Your task to perform on an android device: empty trash in the gmail app Image 0: 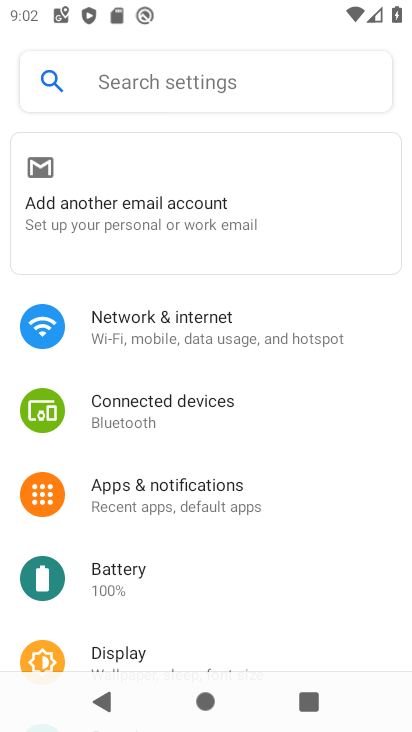
Step 0: press home button
Your task to perform on an android device: empty trash in the gmail app Image 1: 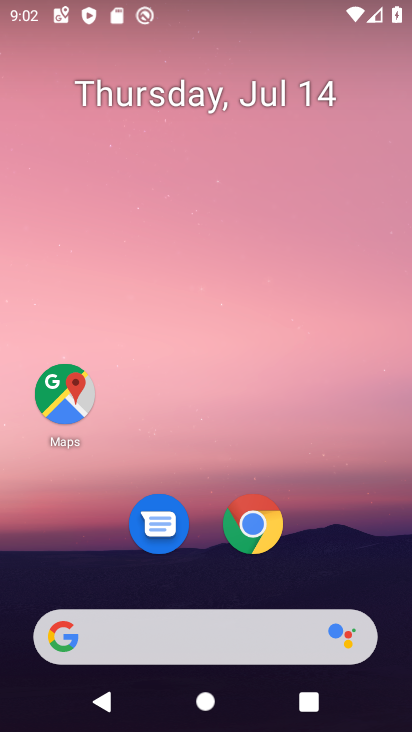
Step 1: drag from (297, 426) to (281, 14)
Your task to perform on an android device: empty trash in the gmail app Image 2: 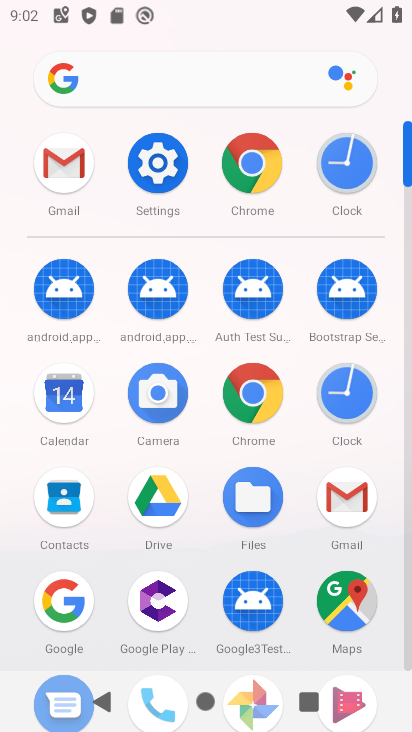
Step 2: click (69, 169)
Your task to perform on an android device: empty trash in the gmail app Image 3: 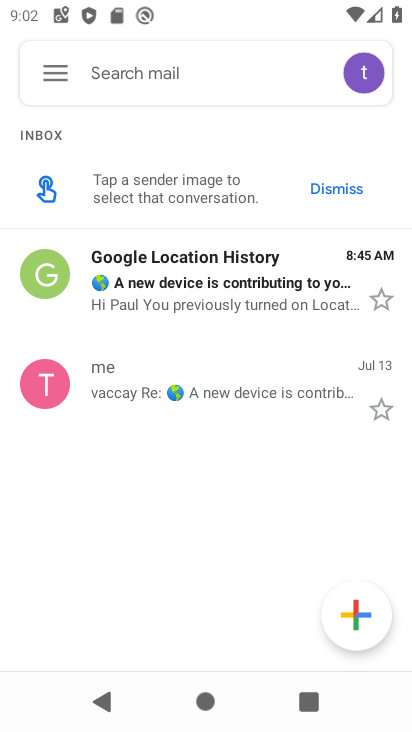
Step 3: click (58, 75)
Your task to perform on an android device: empty trash in the gmail app Image 4: 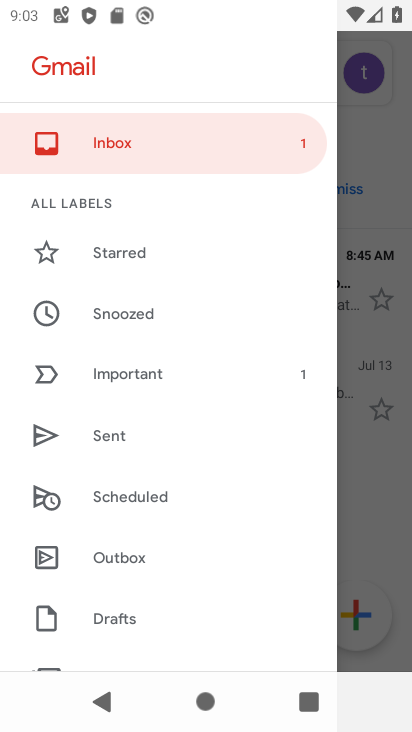
Step 4: drag from (159, 555) to (129, 149)
Your task to perform on an android device: empty trash in the gmail app Image 5: 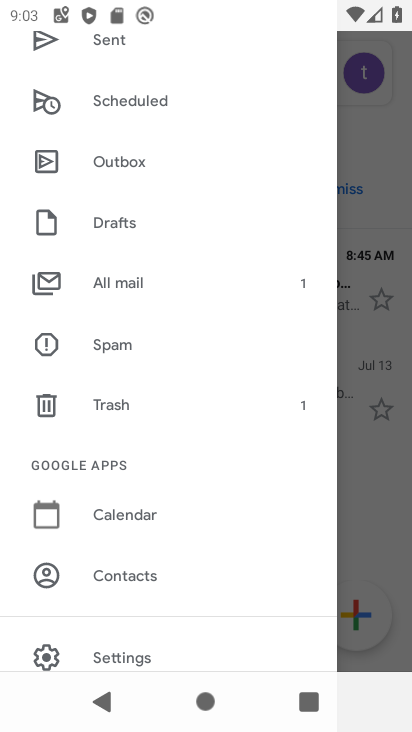
Step 5: click (137, 405)
Your task to perform on an android device: empty trash in the gmail app Image 6: 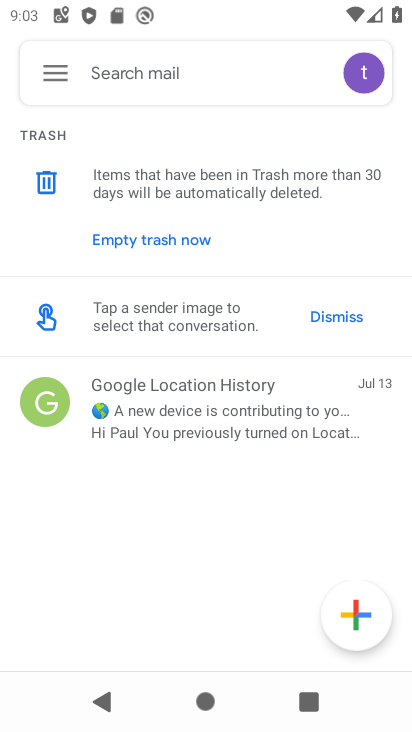
Step 6: click (145, 231)
Your task to perform on an android device: empty trash in the gmail app Image 7: 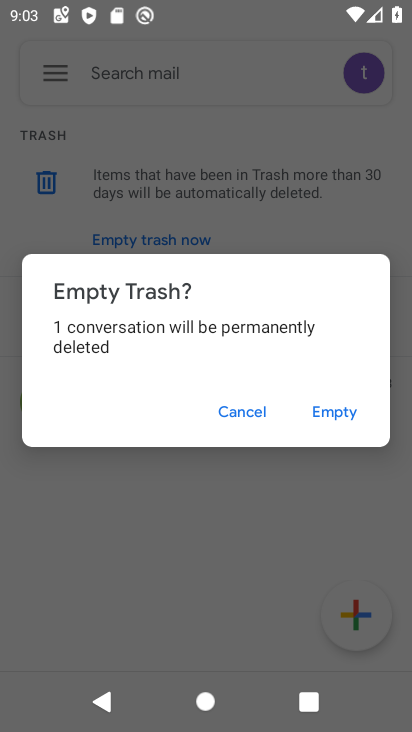
Step 7: click (352, 408)
Your task to perform on an android device: empty trash in the gmail app Image 8: 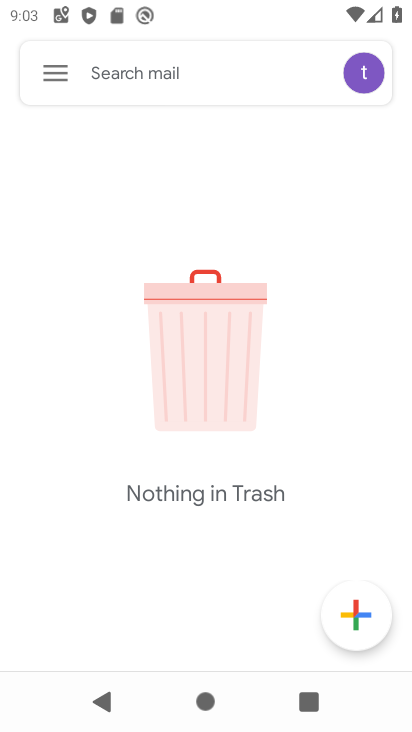
Step 8: task complete